Your task to perform on an android device: turn off notifications settings in the gmail app Image 0: 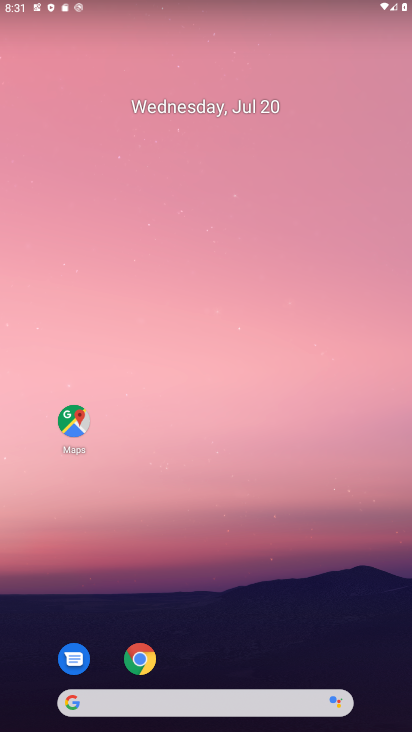
Step 0: drag from (320, 599) to (381, 88)
Your task to perform on an android device: turn off notifications settings in the gmail app Image 1: 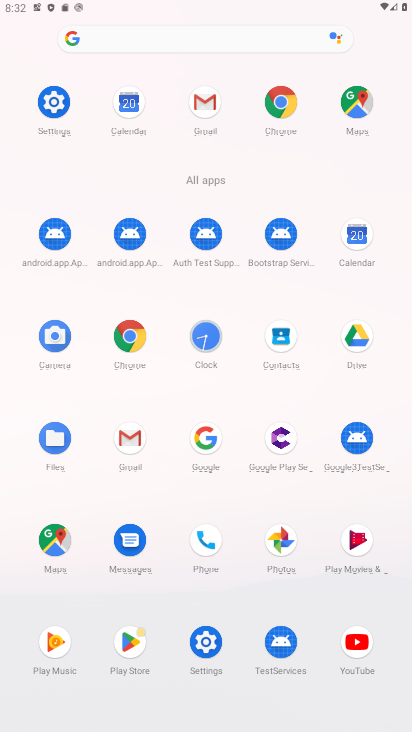
Step 1: click (132, 434)
Your task to perform on an android device: turn off notifications settings in the gmail app Image 2: 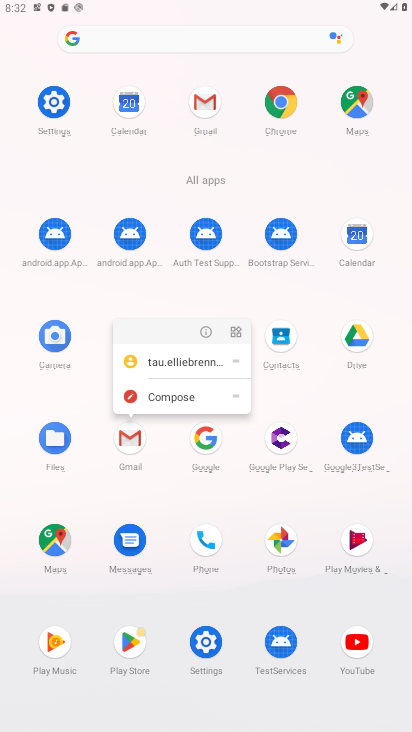
Step 2: click (199, 335)
Your task to perform on an android device: turn off notifications settings in the gmail app Image 3: 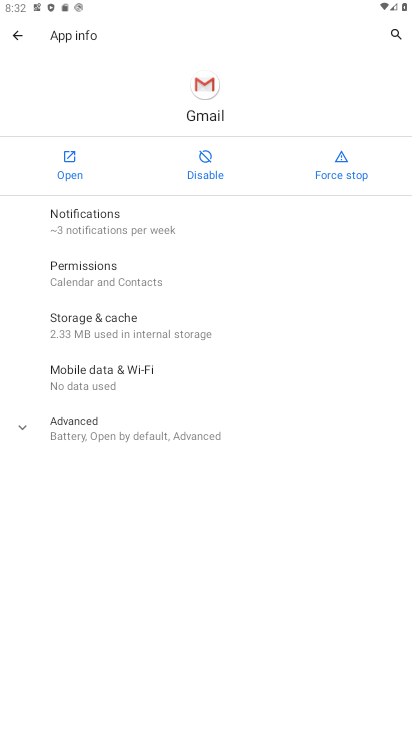
Step 3: click (101, 205)
Your task to perform on an android device: turn off notifications settings in the gmail app Image 4: 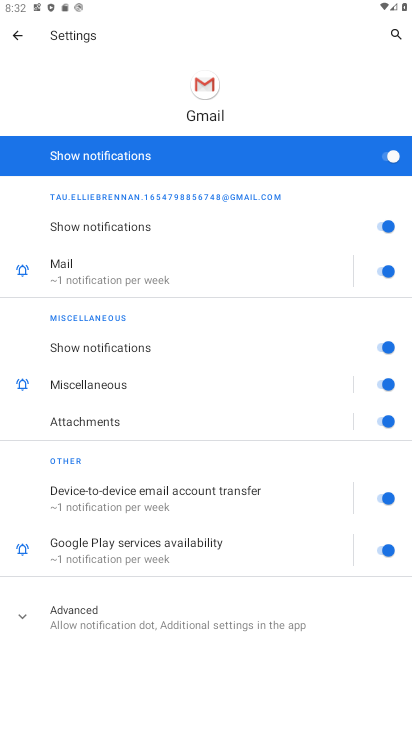
Step 4: click (327, 161)
Your task to perform on an android device: turn off notifications settings in the gmail app Image 5: 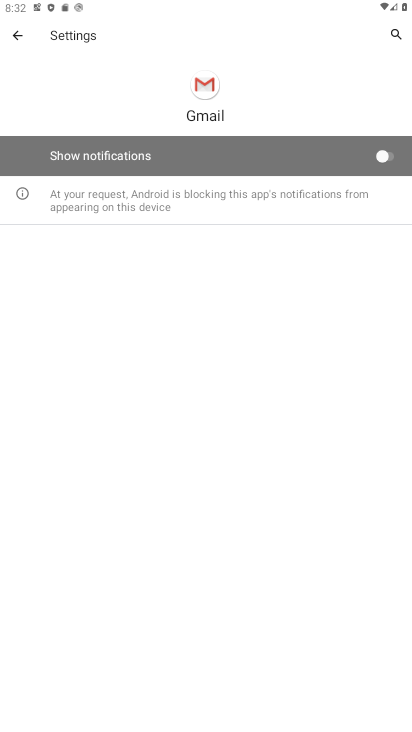
Step 5: task complete